Your task to perform on an android device: Go to ESPN.com Image 0: 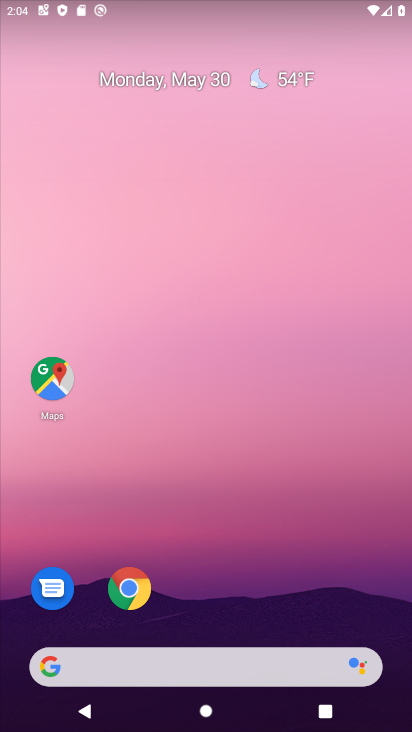
Step 0: drag from (194, 618) to (228, 79)
Your task to perform on an android device: Go to ESPN.com Image 1: 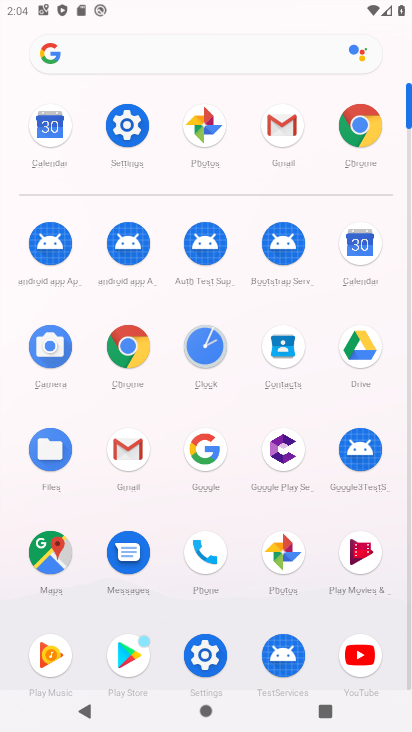
Step 1: click (211, 441)
Your task to perform on an android device: Go to ESPN.com Image 2: 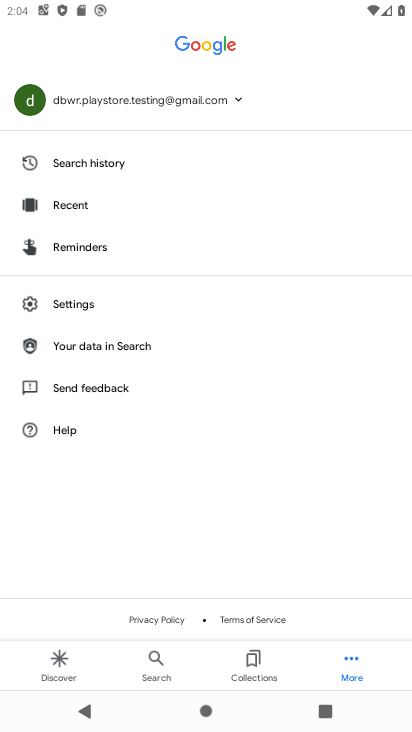
Step 2: press back button
Your task to perform on an android device: Go to ESPN.com Image 3: 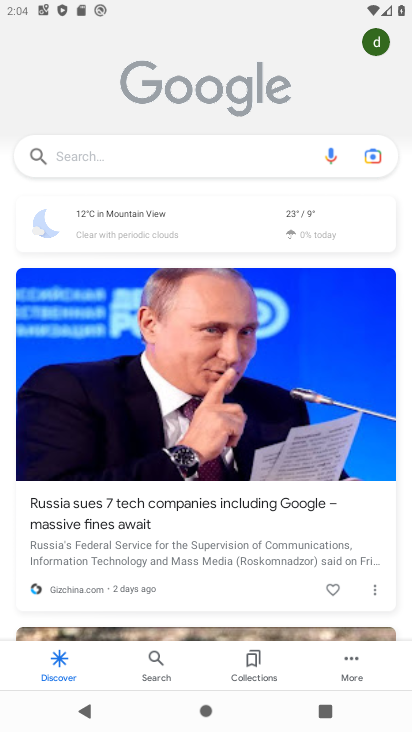
Step 3: click (140, 153)
Your task to perform on an android device: Go to ESPN.com Image 4: 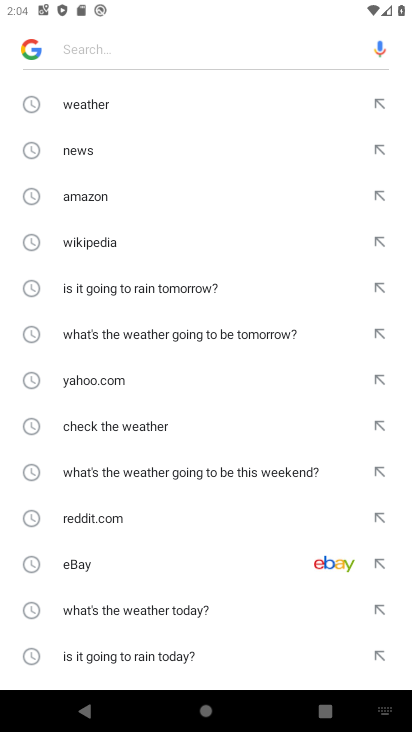
Step 4: drag from (183, 572) to (192, 197)
Your task to perform on an android device: Go to ESPN.com Image 5: 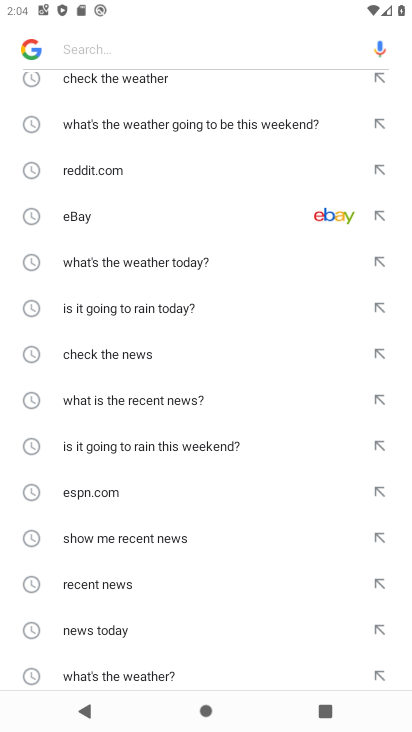
Step 5: click (85, 504)
Your task to perform on an android device: Go to ESPN.com Image 6: 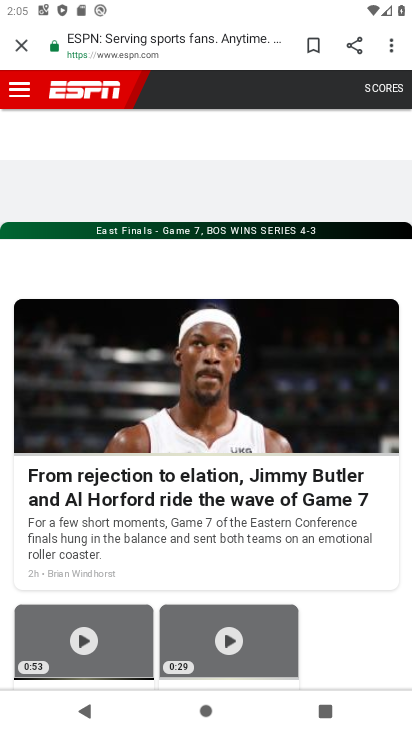
Step 6: task complete